Your task to perform on an android device: Show me productivity apps on the Play Store Image 0: 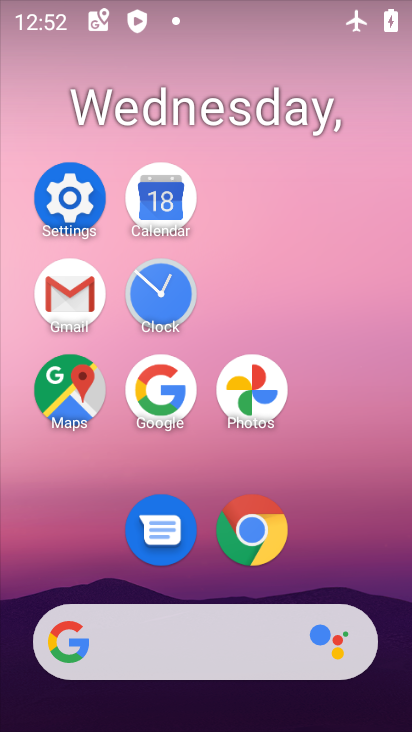
Step 0: drag from (325, 491) to (325, 71)
Your task to perform on an android device: Show me productivity apps on the Play Store Image 1: 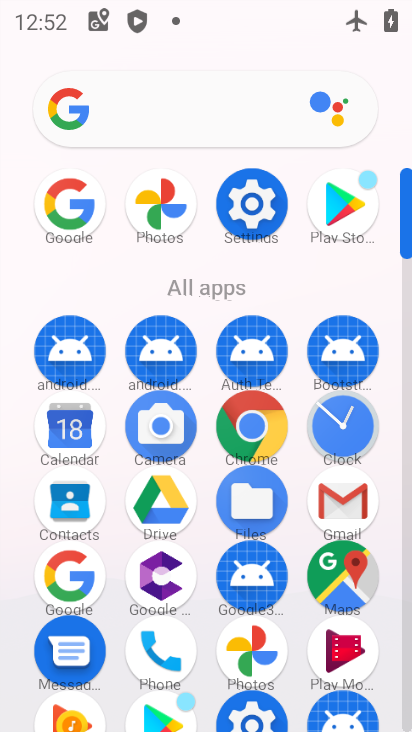
Step 1: drag from (263, 567) to (286, 123)
Your task to perform on an android device: Show me productivity apps on the Play Store Image 2: 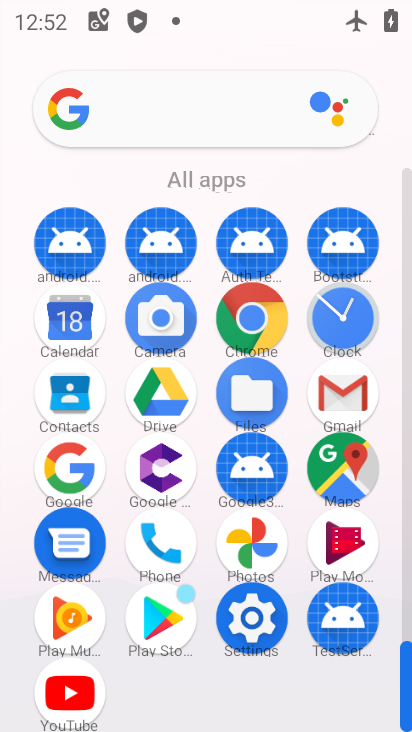
Step 2: click (152, 642)
Your task to perform on an android device: Show me productivity apps on the Play Store Image 3: 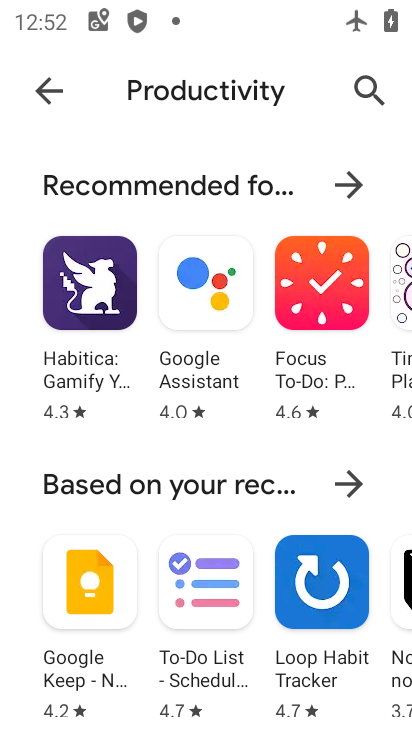
Step 3: task complete